Your task to perform on an android device: read, delete, or share a saved page in the chrome app Image 0: 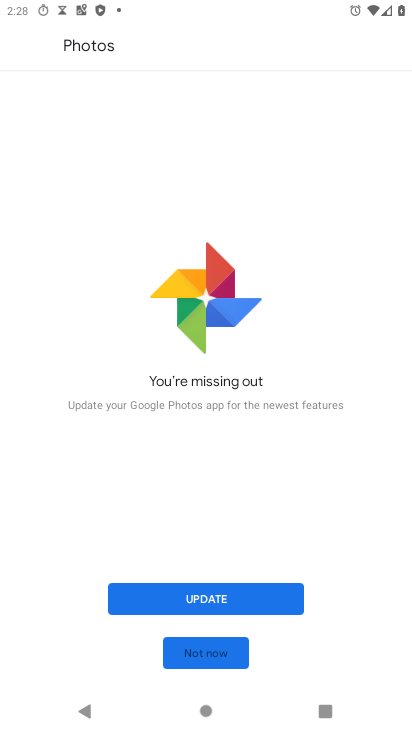
Step 0: press home button
Your task to perform on an android device: read, delete, or share a saved page in the chrome app Image 1: 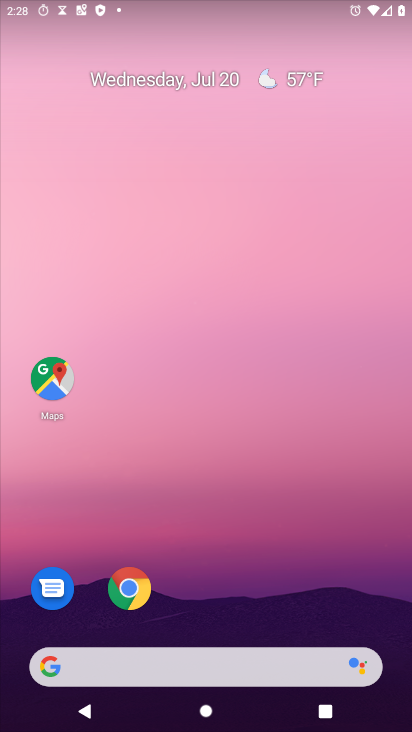
Step 1: drag from (354, 521) to (368, 42)
Your task to perform on an android device: read, delete, or share a saved page in the chrome app Image 2: 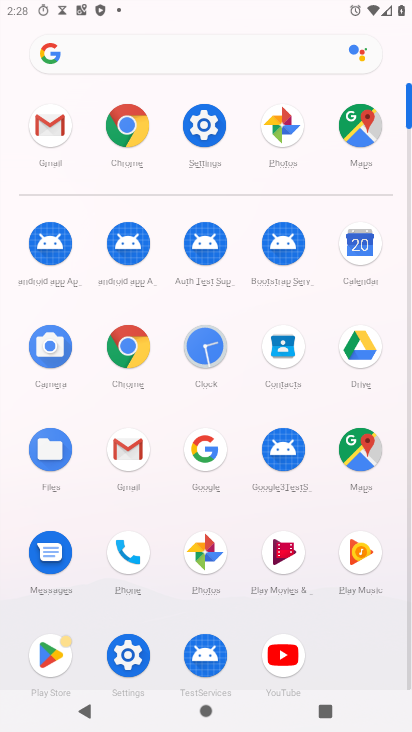
Step 2: click (127, 352)
Your task to perform on an android device: read, delete, or share a saved page in the chrome app Image 3: 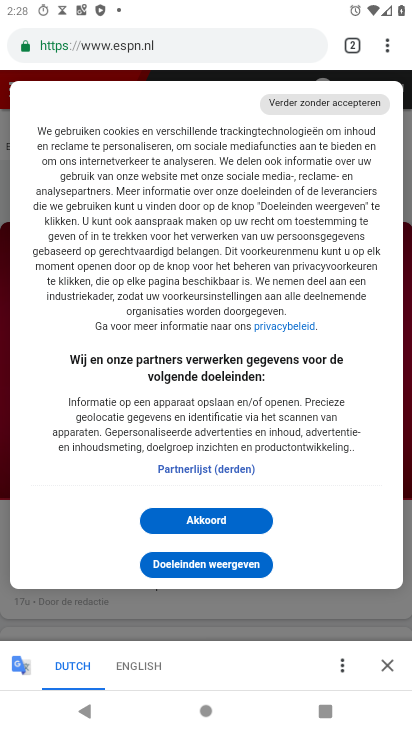
Step 3: task complete